Your task to perform on an android device: Go to settings Image 0: 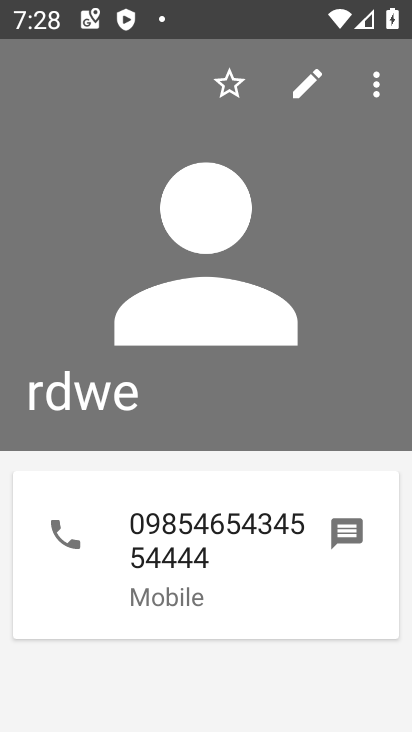
Step 0: press home button
Your task to perform on an android device: Go to settings Image 1: 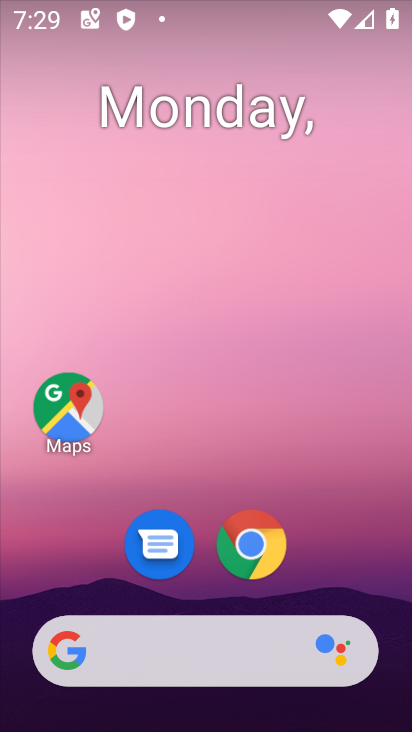
Step 1: drag from (339, 562) to (206, 50)
Your task to perform on an android device: Go to settings Image 2: 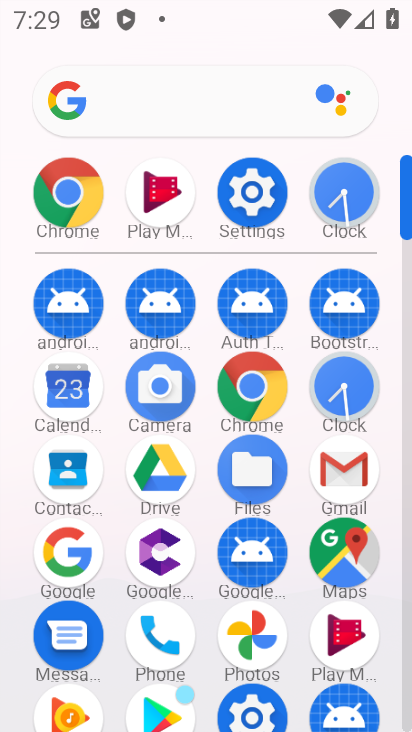
Step 2: click (253, 191)
Your task to perform on an android device: Go to settings Image 3: 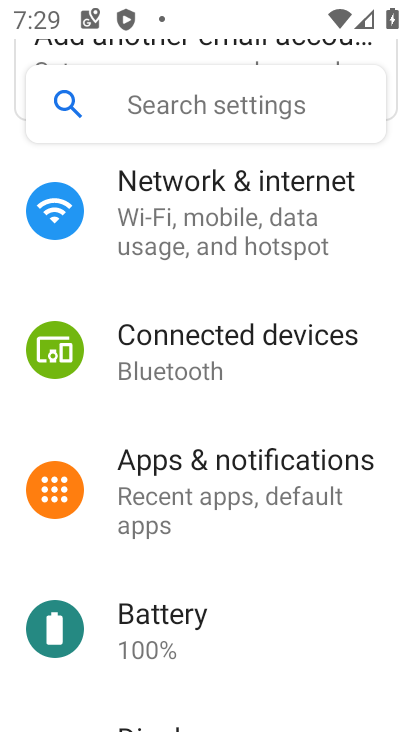
Step 3: task complete